Your task to perform on an android device: Show the shopping cart on ebay. Image 0: 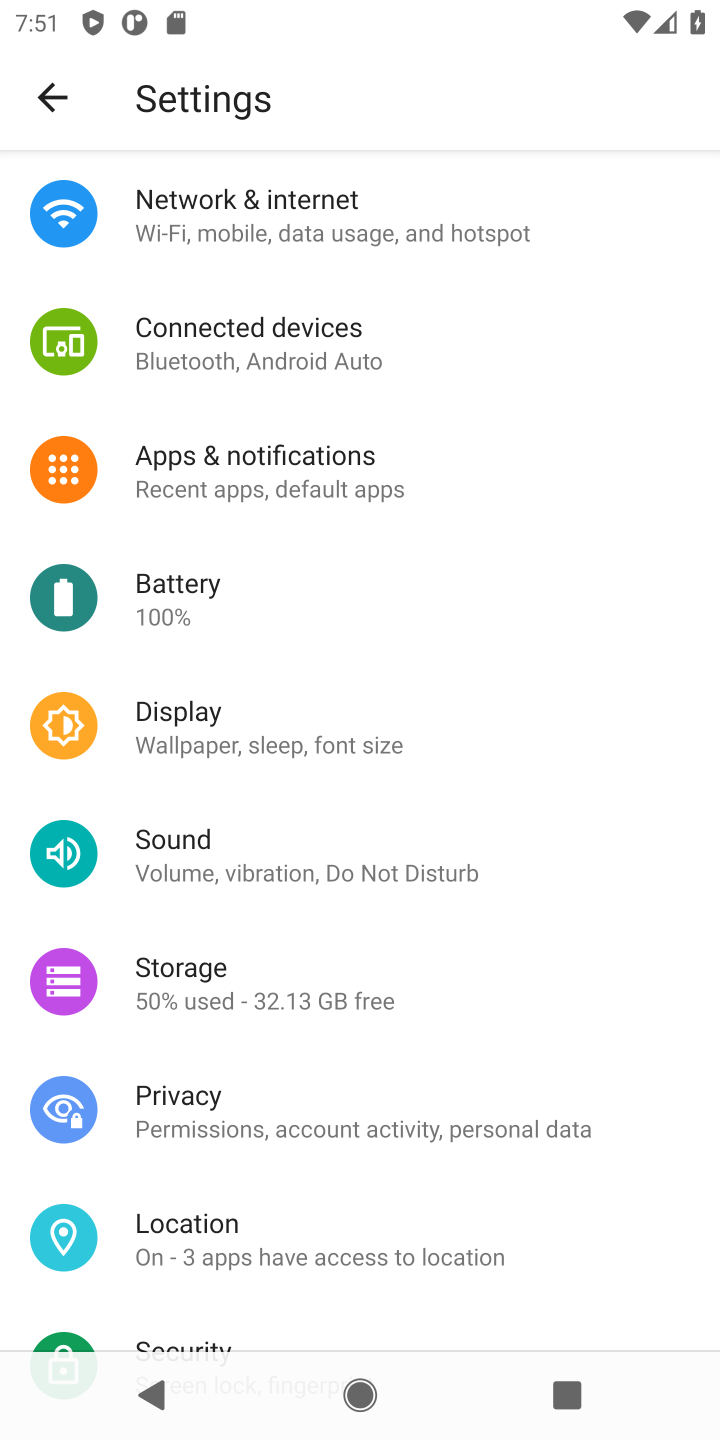
Step 0: press home button
Your task to perform on an android device: Show the shopping cart on ebay. Image 1: 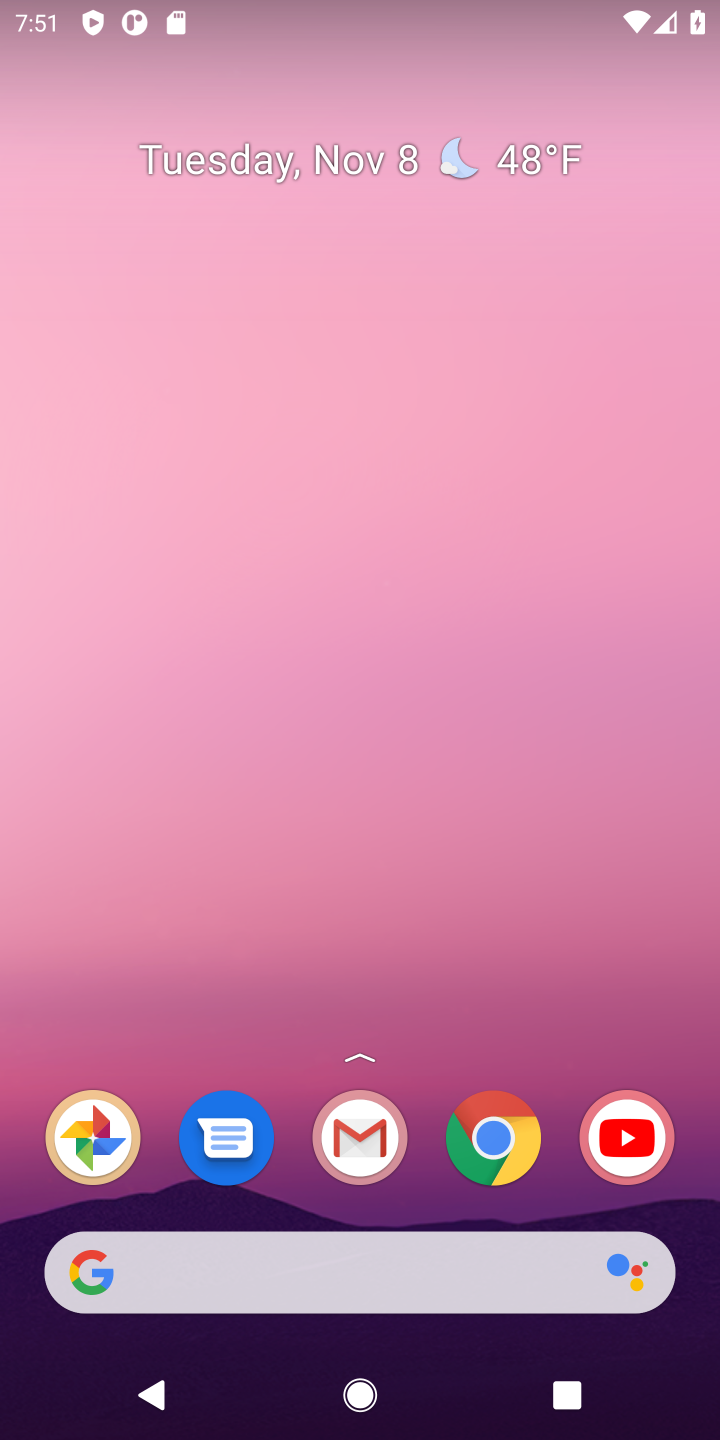
Step 1: click (497, 1129)
Your task to perform on an android device: Show the shopping cart on ebay. Image 2: 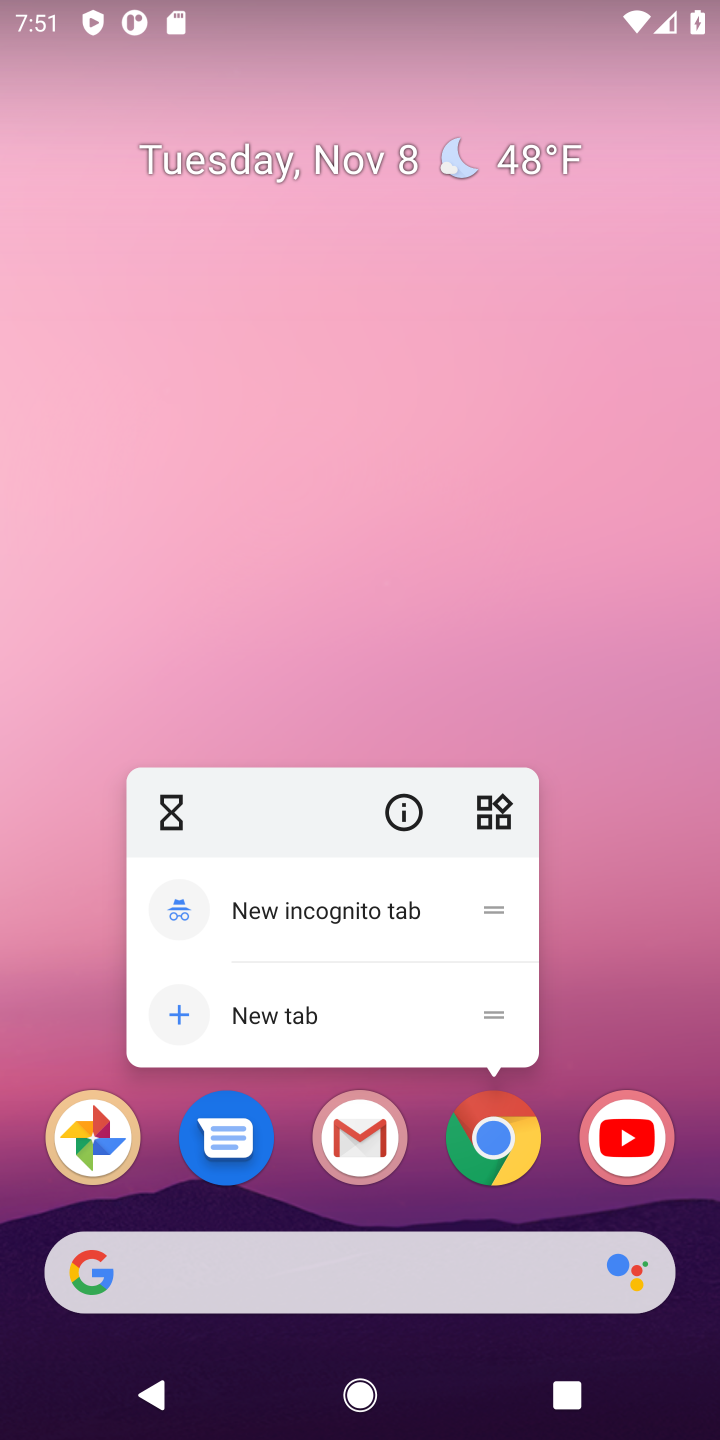
Step 2: click (498, 1133)
Your task to perform on an android device: Show the shopping cart on ebay. Image 3: 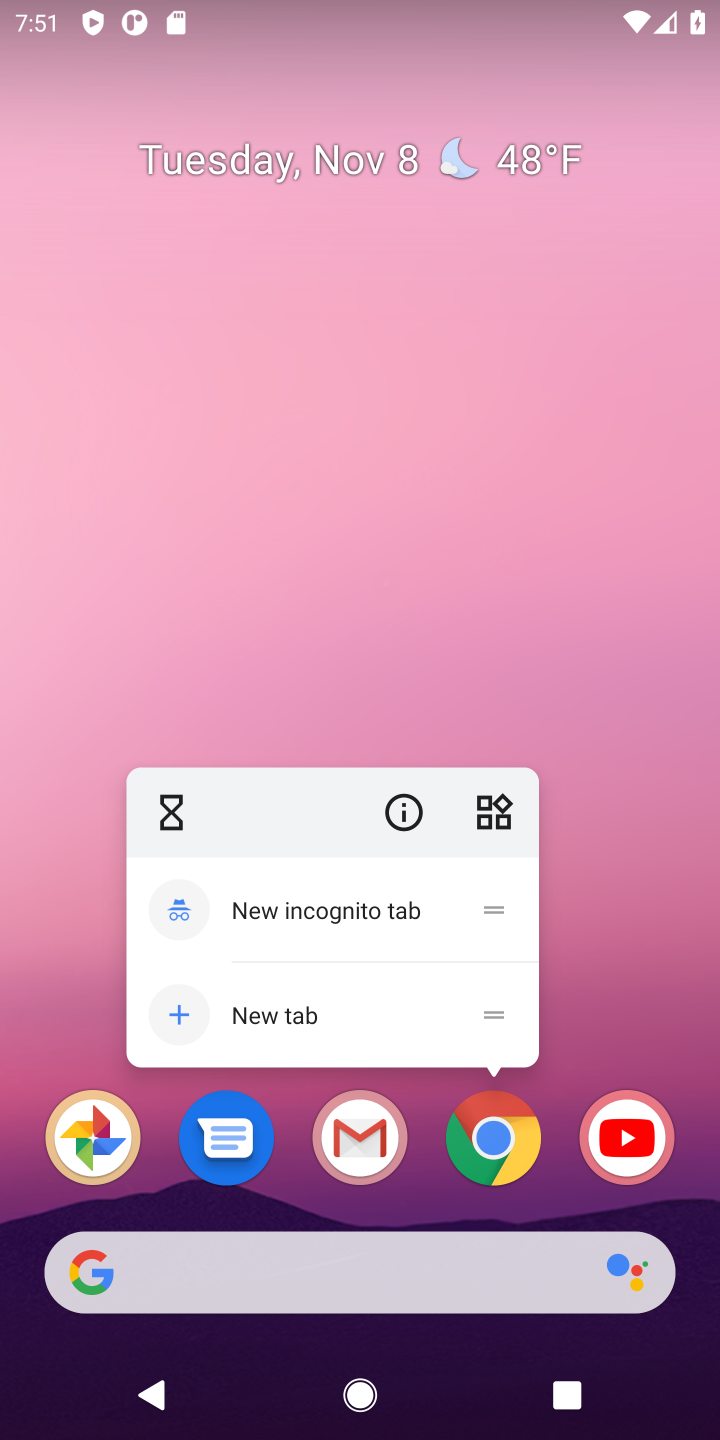
Step 3: click (498, 1133)
Your task to perform on an android device: Show the shopping cart on ebay. Image 4: 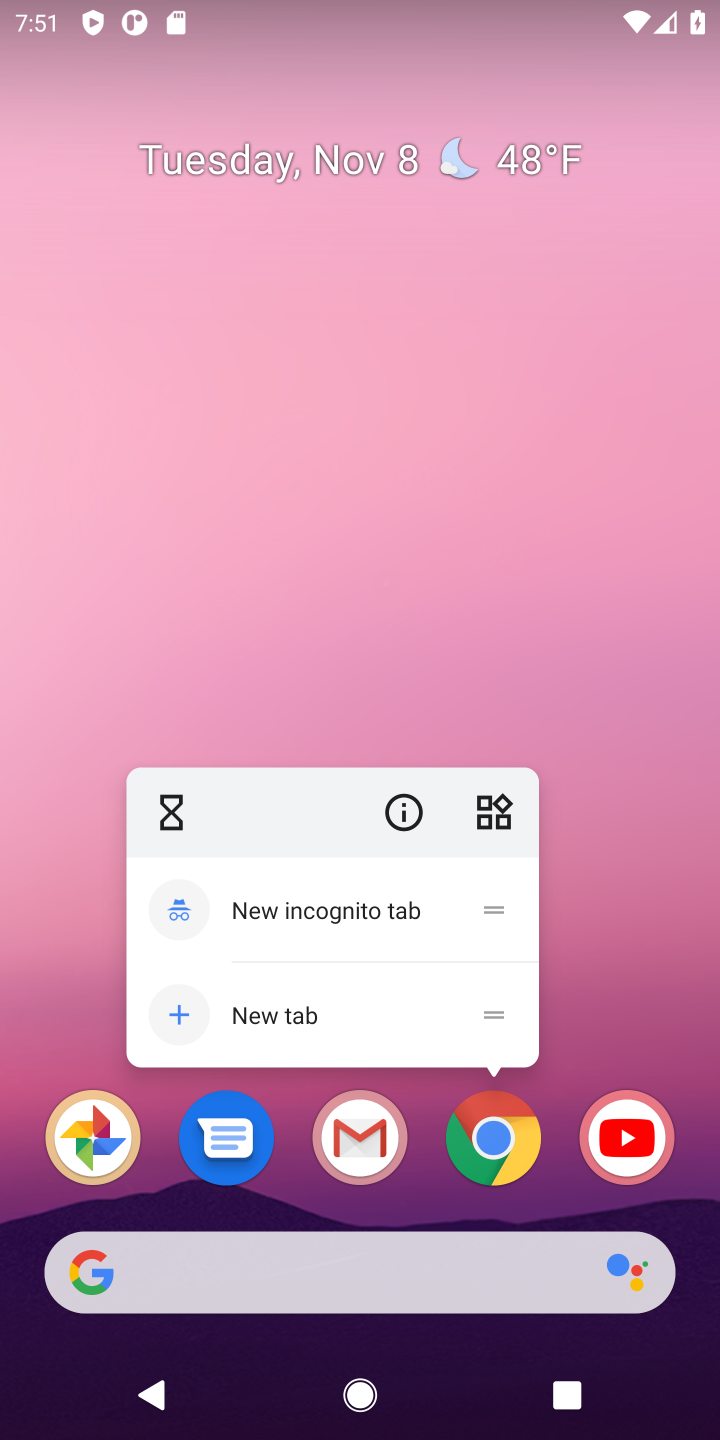
Step 4: click (498, 1139)
Your task to perform on an android device: Show the shopping cart on ebay. Image 5: 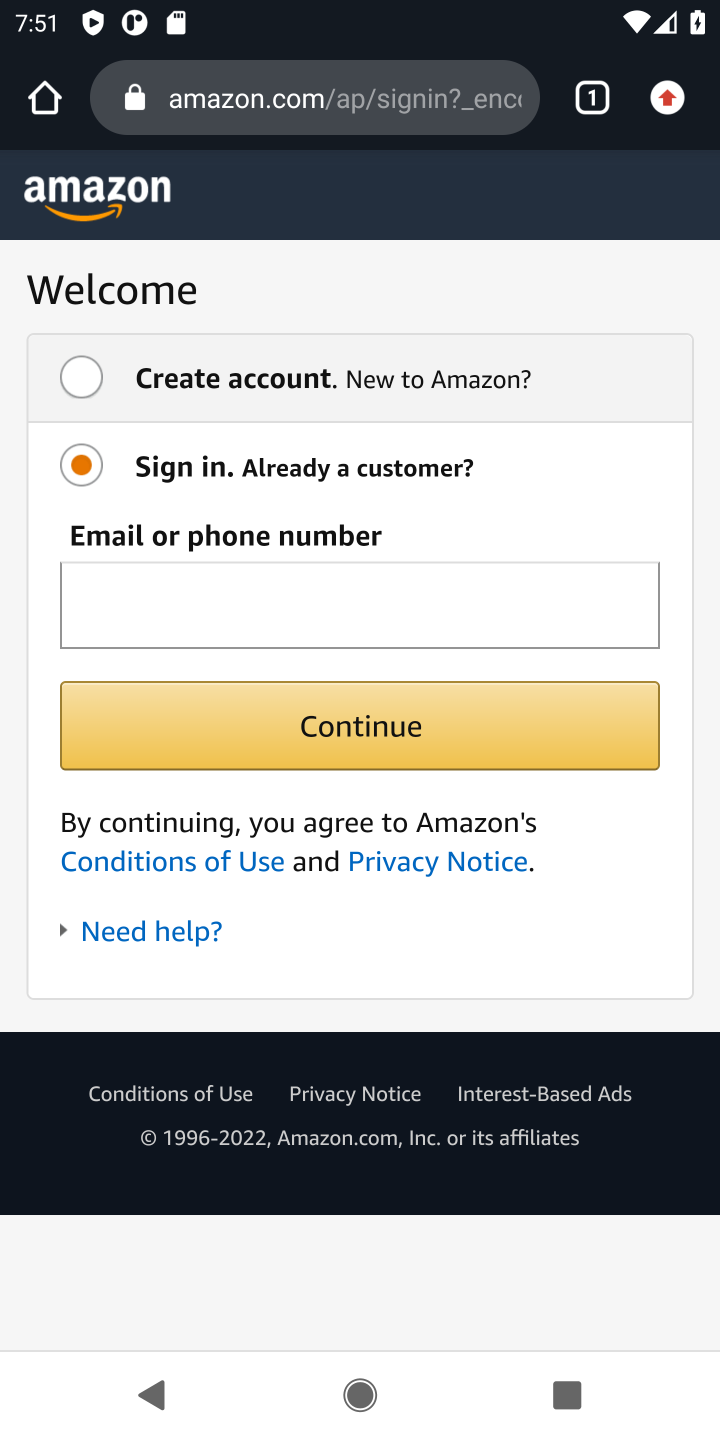
Step 5: click (345, 106)
Your task to perform on an android device: Show the shopping cart on ebay. Image 6: 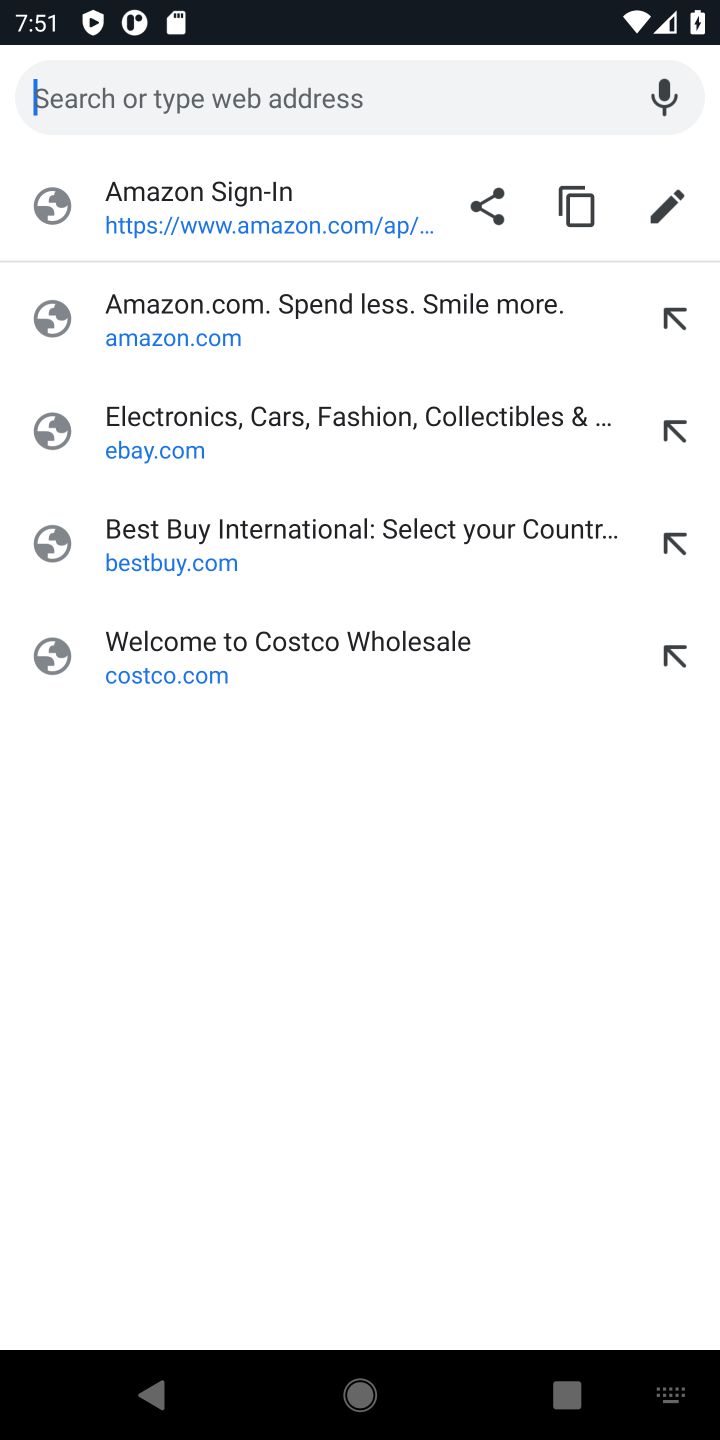
Step 6: click (136, 435)
Your task to perform on an android device: Show the shopping cart on ebay. Image 7: 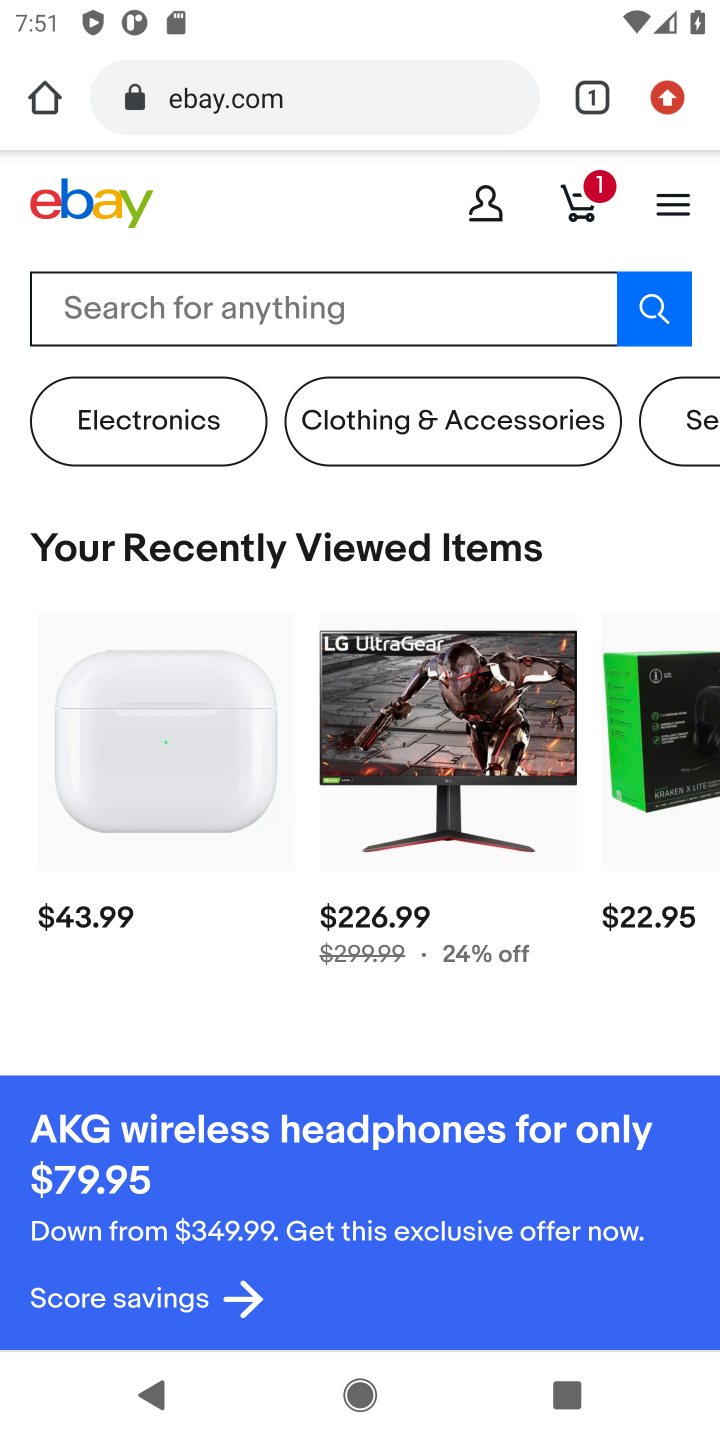
Step 7: click (593, 187)
Your task to perform on an android device: Show the shopping cart on ebay. Image 8: 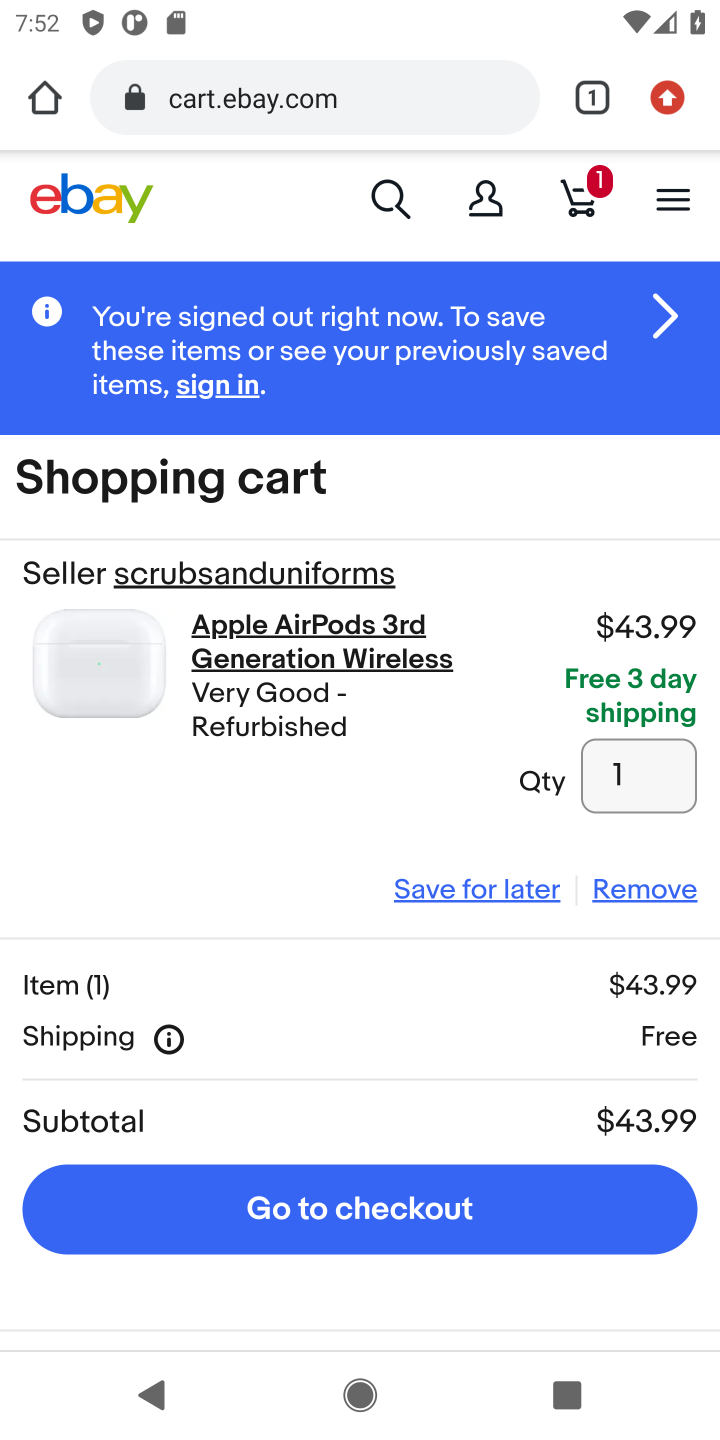
Step 8: task complete